Your task to perform on an android device: Open calendar and show me the first week of next month Image 0: 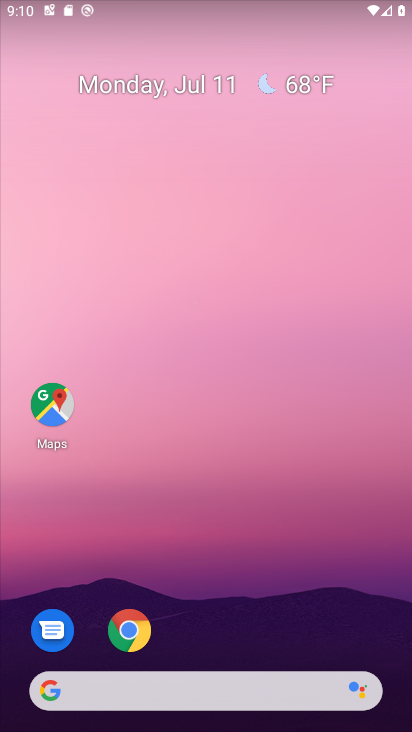
Step 0: drag from (213, 641) to (301, 7)
Your task to perform on an android device: Open calendar and show me the first week of next month Image 1: 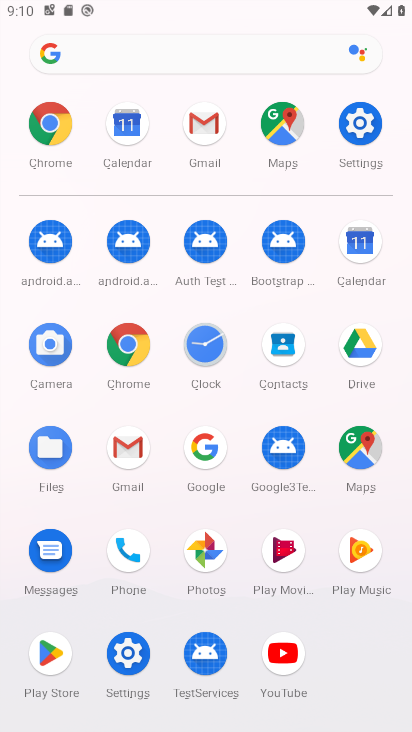
Step 1: click (364, 246)
Your task to perform on an android device: Open calendar and show me the first week of next month Image 2: 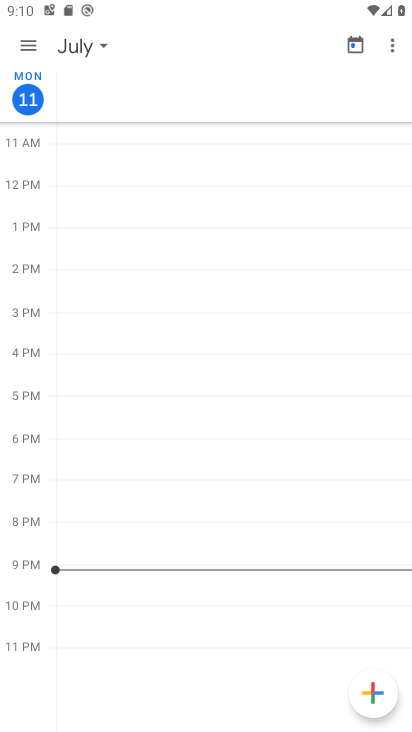
Step 2: click (28, 39)
Your task to perform on an android device: Open calendar and show me the first week of next month Image 3: 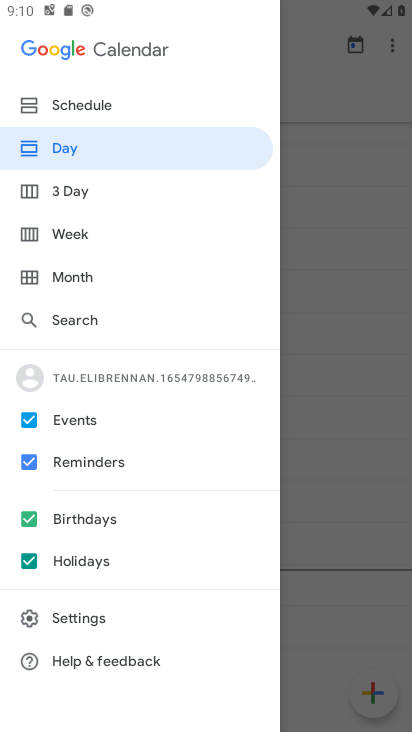
Step 3: click (72, 234)
Your task to perform on an android device: Open calendar and show me the first week of next month Image 4: 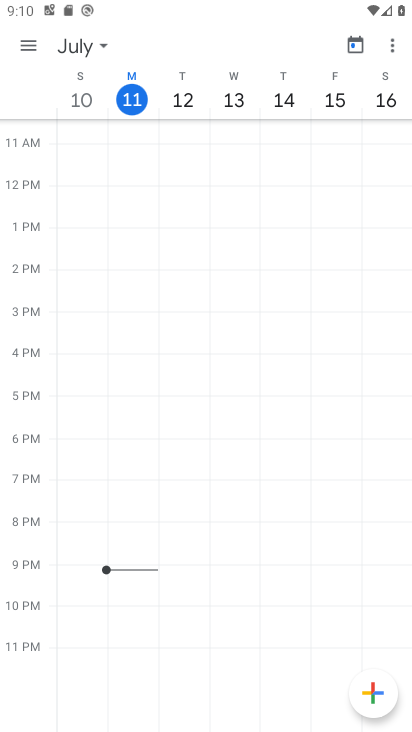
Step 4: task complete